Your task to perform on an android device: delete browsing data in the chrome app Image 0: 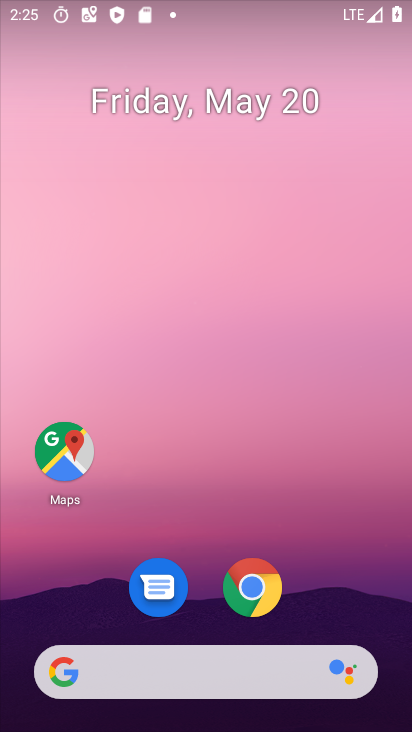
Step 0: click (257, 591)
Your task to perform on an android device: delete browsing data in the chrome app Image 1: 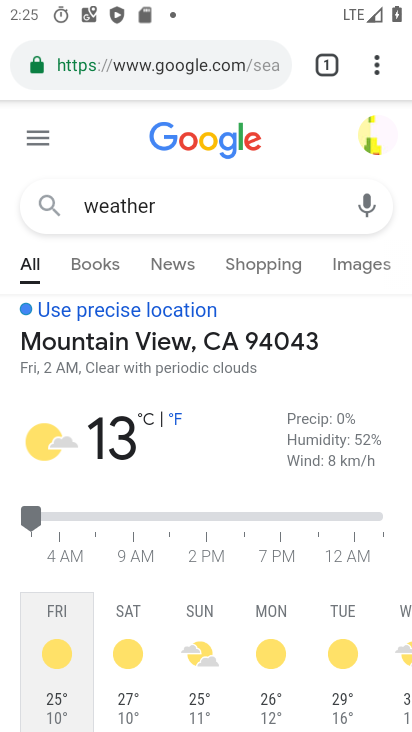
Step 1: task complete